Your task to perform on an android device: turn vacation reply on in the gmail app Image 0: 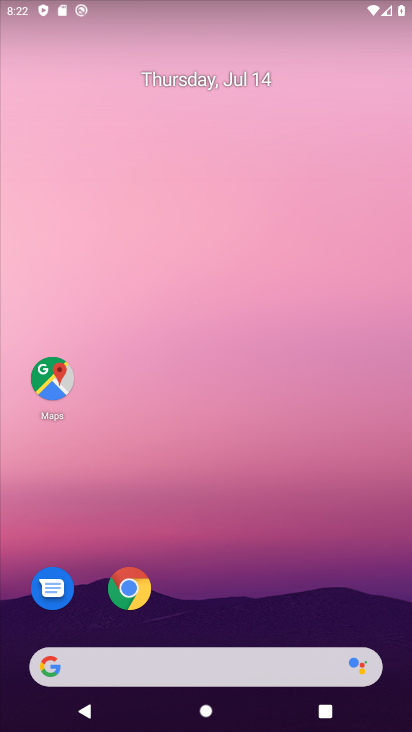
Step 0: drag from (235, 625) to (252, 226)
Your task to perform on an android device: turn vacation reply on in the gmail app Image 1: 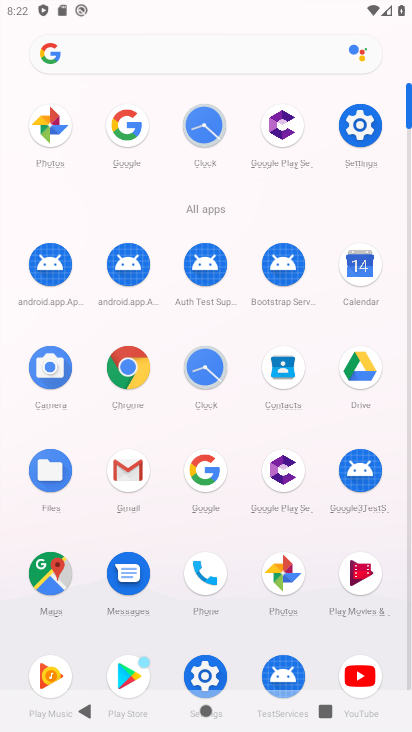
Step 1: click (130, 469)
Your task to perform on an android device: turn vacation reply on in the gmail app Image 2: 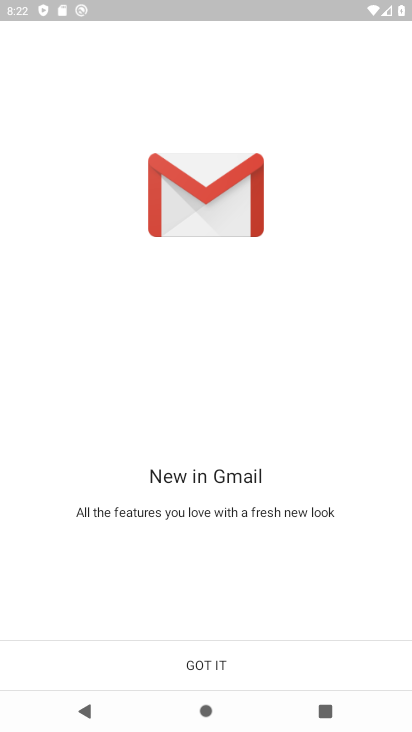
Step 2: click (193, 664)
Your task to perform on an android device: turn vacation reply on in the gmail app Image 3: 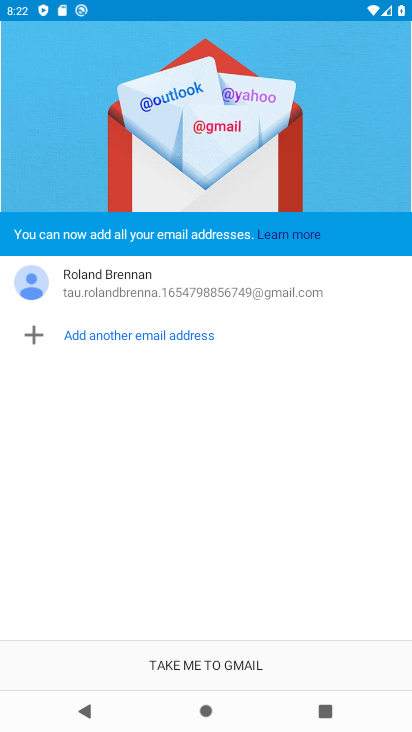
Step 3: click (193, 664)
Your task to perform on an android device: turn vacation reply on in the gmail app Image 4: 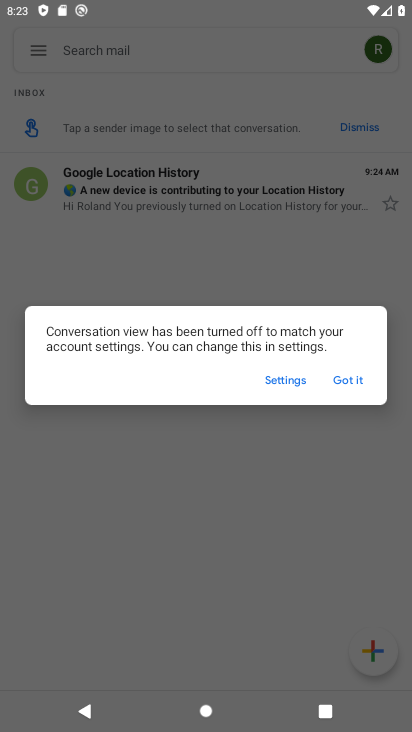
Step 4: click (292, 385)
Your task to perform on an android device: turn vacation reply on in the gmail app Image 5: 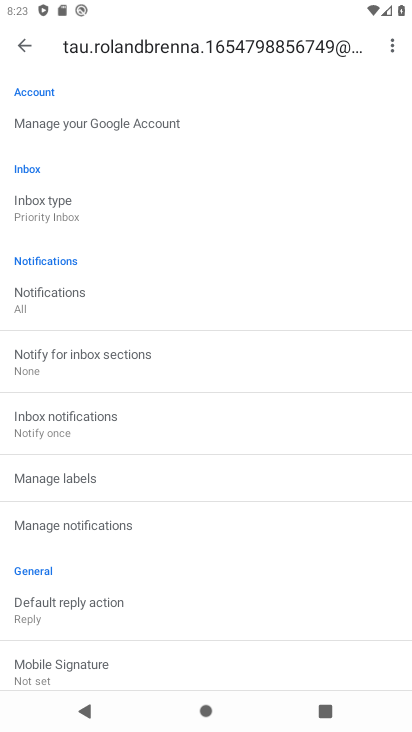
Step 5: drag from (210, 586) to (217, 237)
Your task to perform on an android device: turn vacation reply on in the gmail app Image 6: 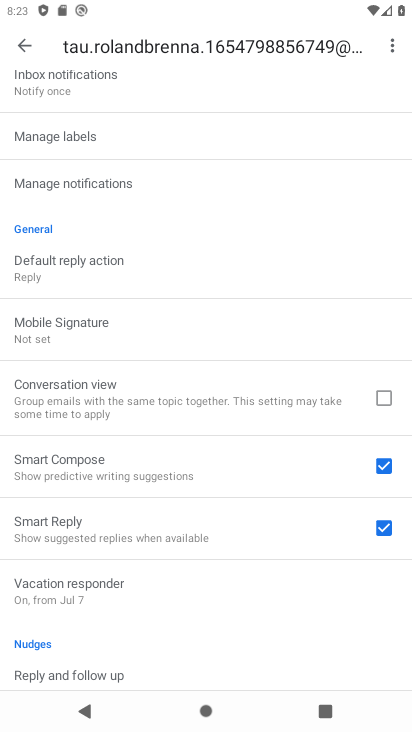
Step 6: click (104, 592)
Your task to perform on an android device: turn vacation reply on in the gmail app Image 7: 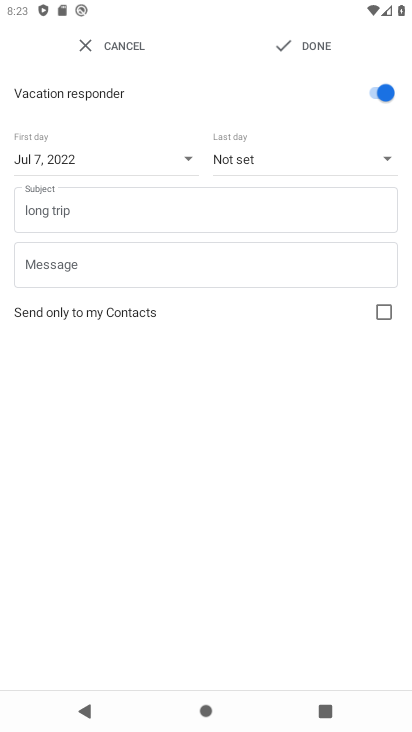
Step 7: task complete